Your task to perform on an android device: Go to Wikipedia Image 0: 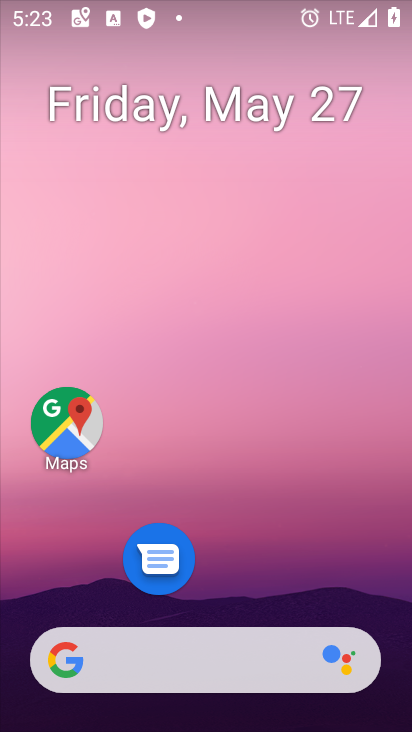
Step 0: drag from (196, 682) to (241, 27)
Your task to perform on an android device: Go to Wikipedia Image 1: 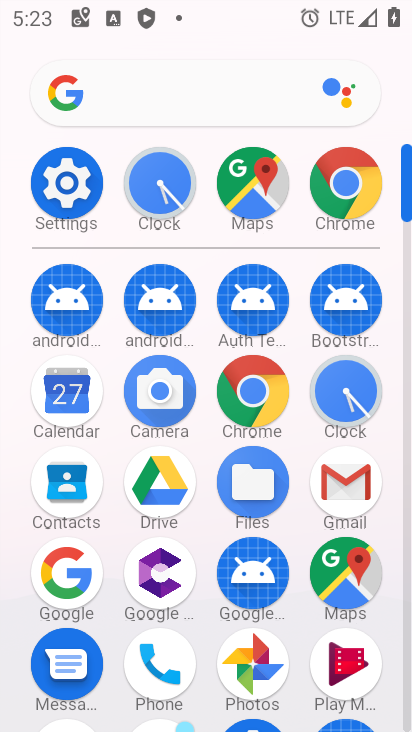
Step 1: click (259, 385)
Your task to perform on an android device: Go to Wikipedia Image 2: 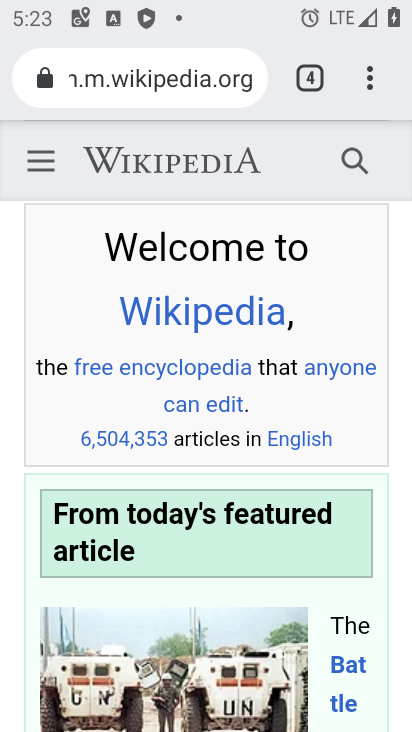
Step 2: task complete